Your task to perform on an android device: Find coffee shops on Maps Image 0: 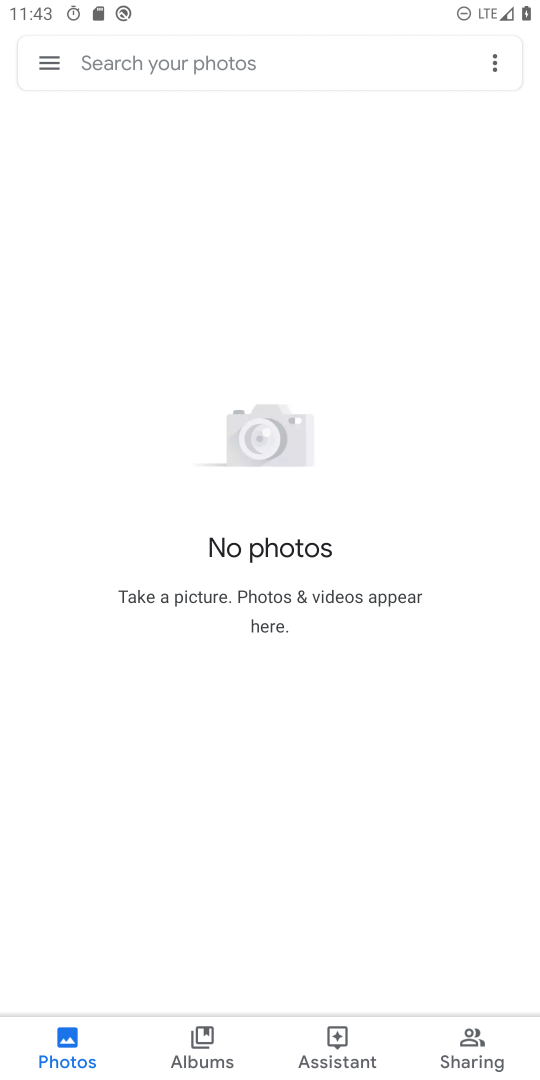
Step 0: press home button
Your task to perform on an android device: Find coffee shops on Maps Image 1: 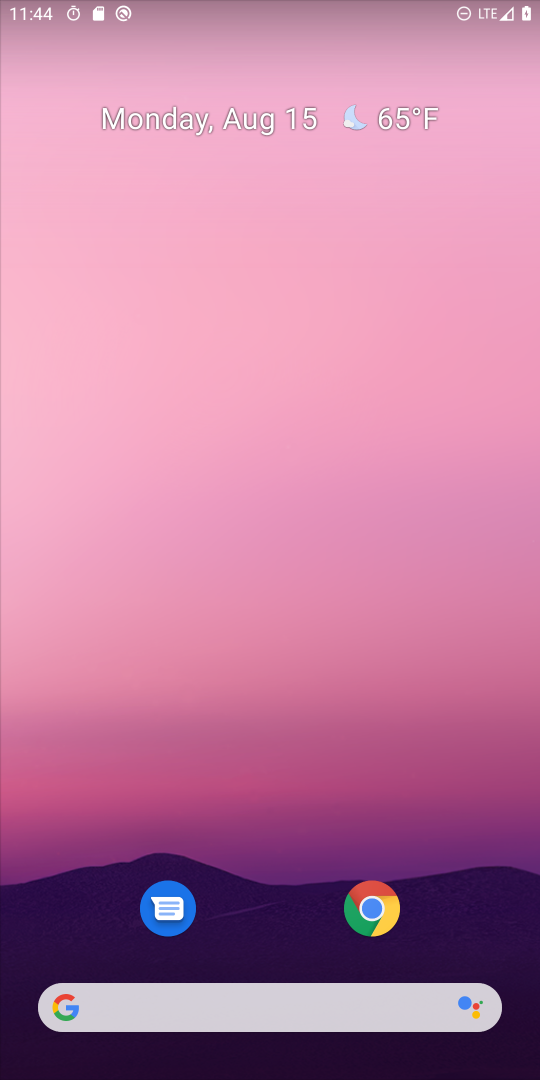
Step 1: drag from (257, 908) to (477, 395)
Your task to perform on an android device: Find coffee shops on Maps Image 2: 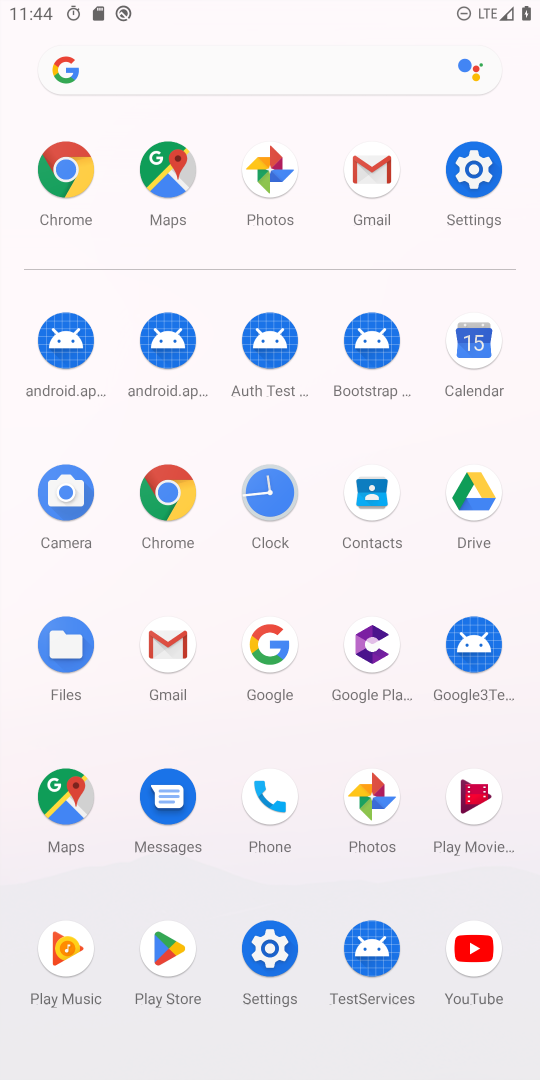
Step 2: click (179, 177)
Your task to perform on an android device: Find coffee shops on Maps Image 3: 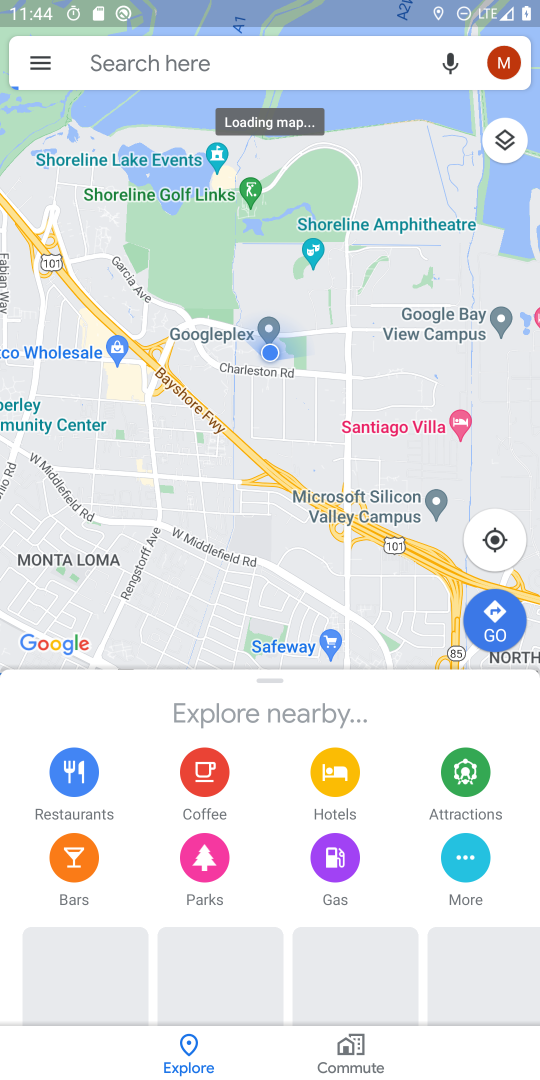
Step 3: click (195, 48)
Your task to perform on an android device: Find coffee shops on Maps Image 4: 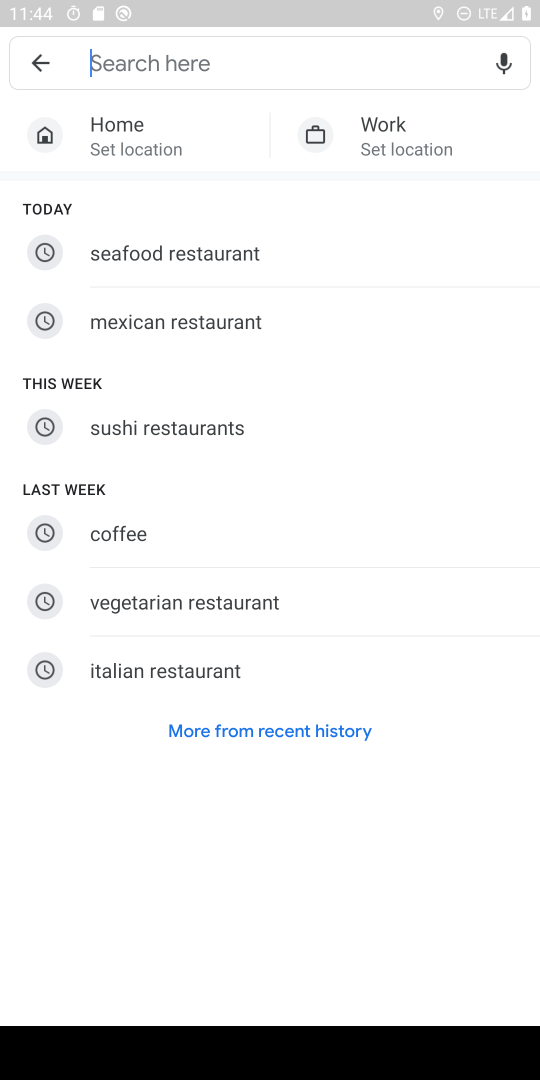
Step 4: click (180, 547)
Your task to perform on an android device: Find coffee shops on Maps Image 5: 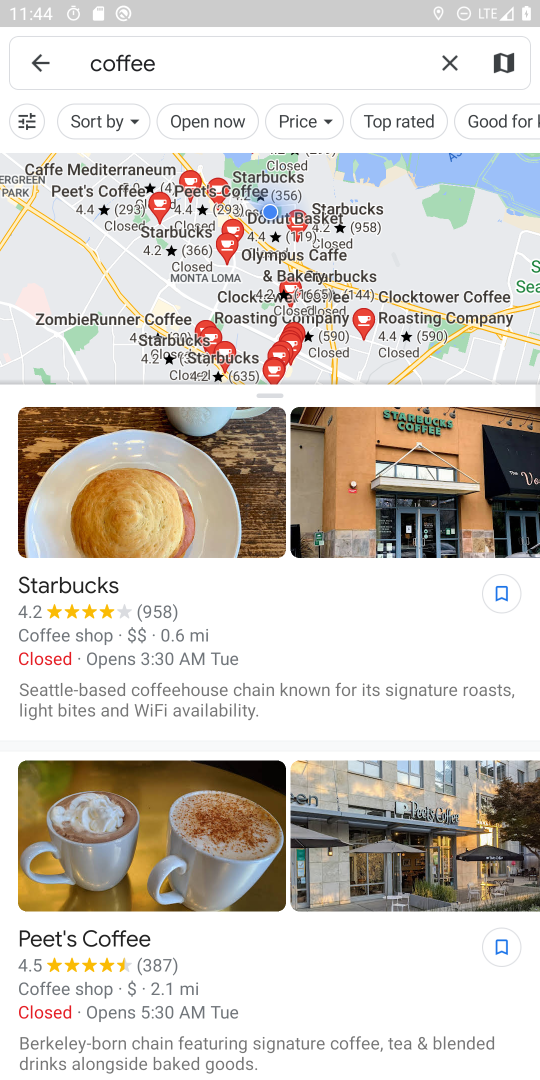
Step 5: task complete